Your task to perform on an android device: Go to Google Image 0: 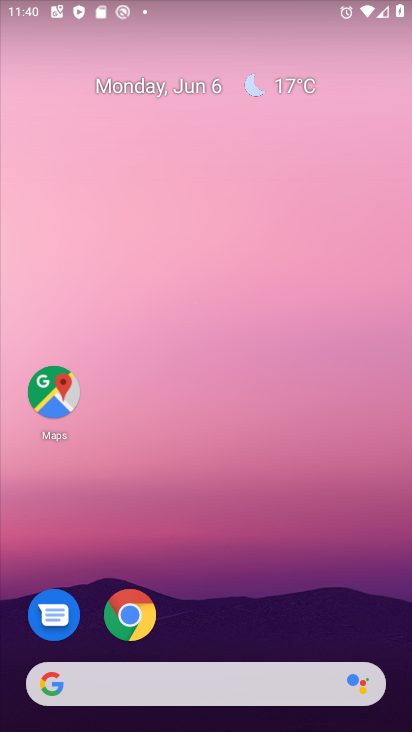
Step 0: press home button
Your task to perform on an android device: Go to Google Image 1: 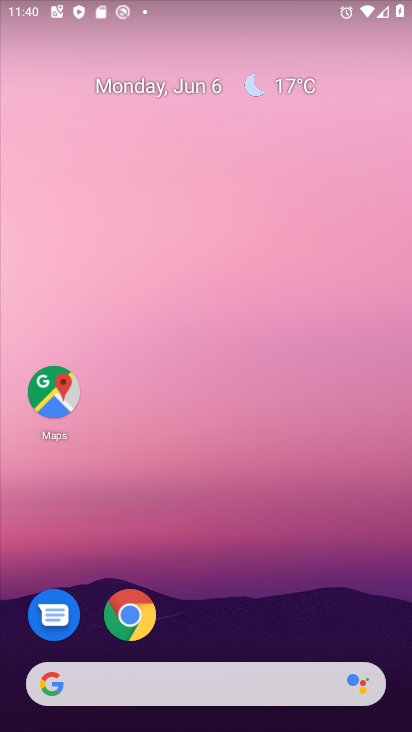
Step 1: drag from (243, 628) to (292, 299)
Your task to perform on an android device: Go to Google Image 2: 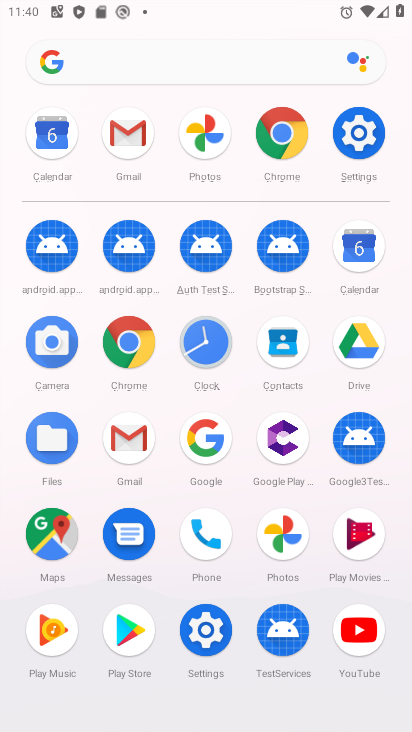
Step 2: click (202, 437)
Your task to perform on an android device: Go to Google Image 3: 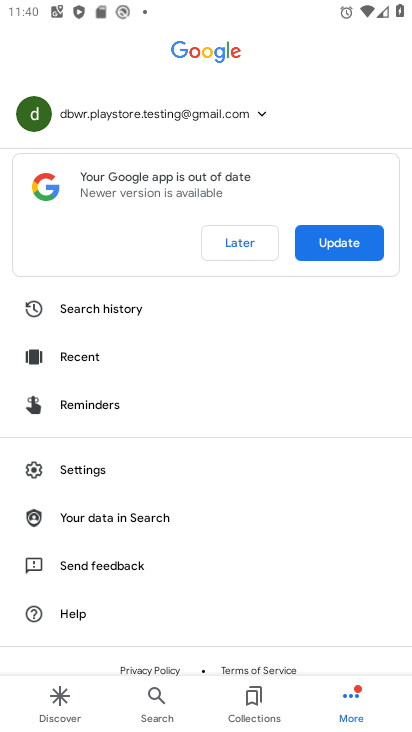
Step 3: click (58, 696)
Your task to perform on an android device: Go to Google Image 4: 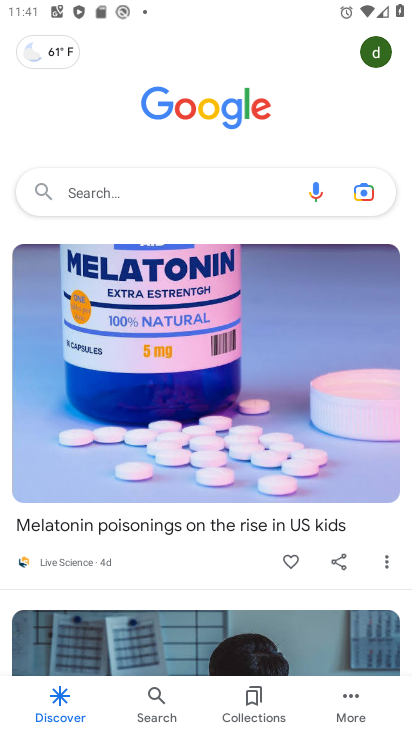
Step 4: click (153, 704)
Your task to perform on an android device: Go to Google Image 5: 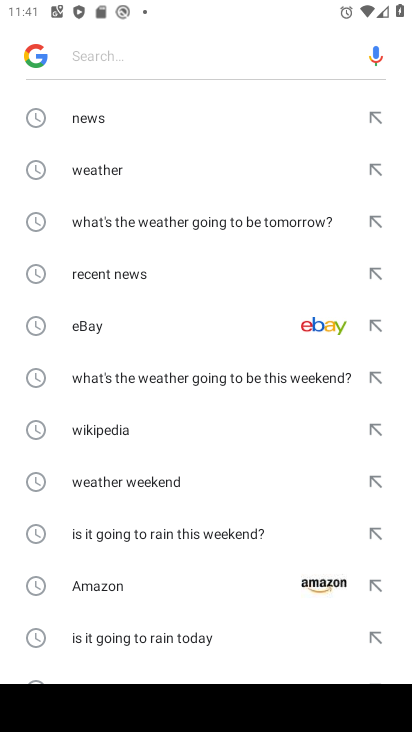
Step 5: task complete